Your task to perform on an android device: Is it going to rain tomorrow? Image 0: 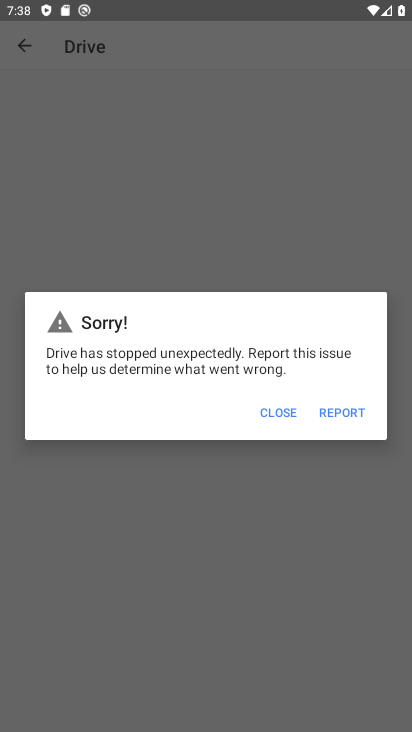
Step 0: press home button
Your task to perform on an android device: Is it going to rain tomorrow? Image 1: 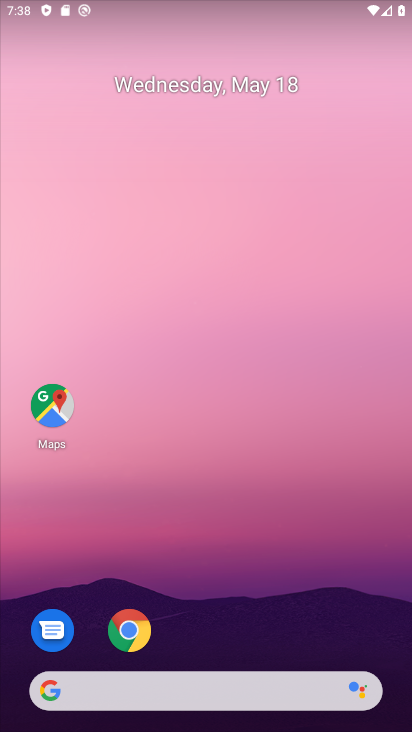
Step 1: drag from (243, 593) to (162, 22)
Your task to perform on an android device: Is it going to rain tomorrow? Image 2: 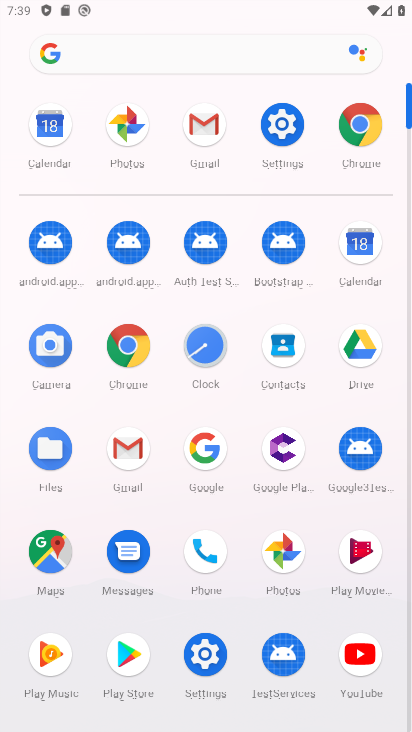
Step 2: click (116, 47)
Your task to perform on an android device: Is it going to rain tomorrow? Image 3: 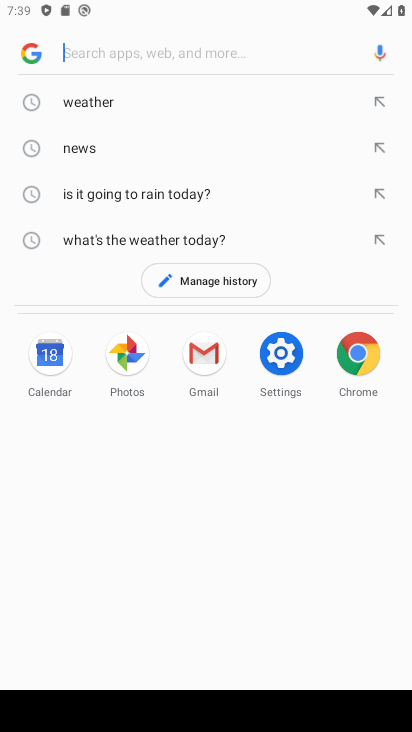
Step 3: click (96, 97)
Your task to perform on an android device: Is it going to rain tomorrow? Image 4: 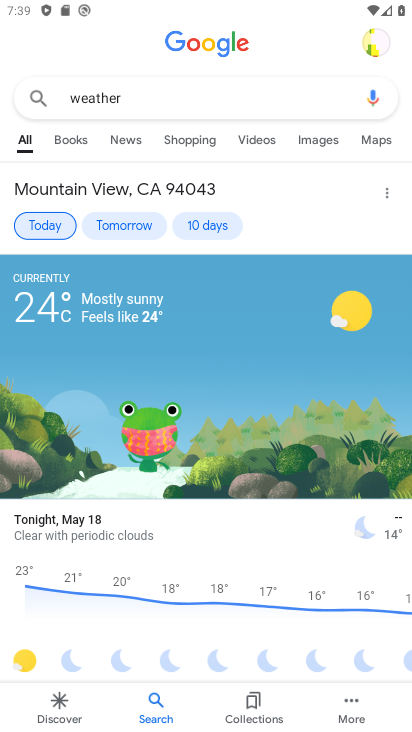
Step 4: click (129, 214)
Your task to perform on an android device: Is it going to rain tomorrow? Image 5: 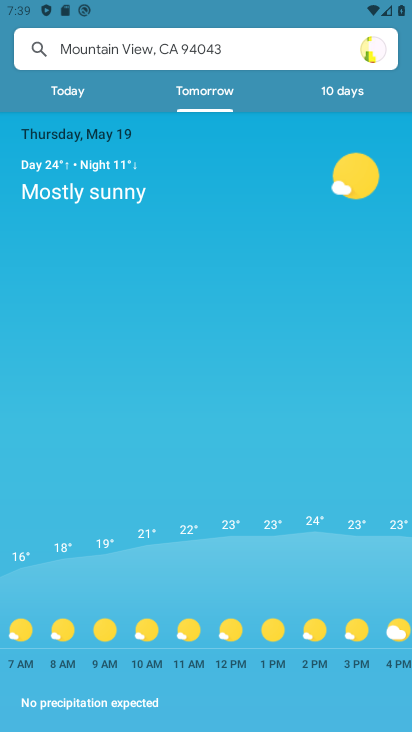
Step 5: task complete